Your task to perform on an android device: open chrome privacy settings Image 0: 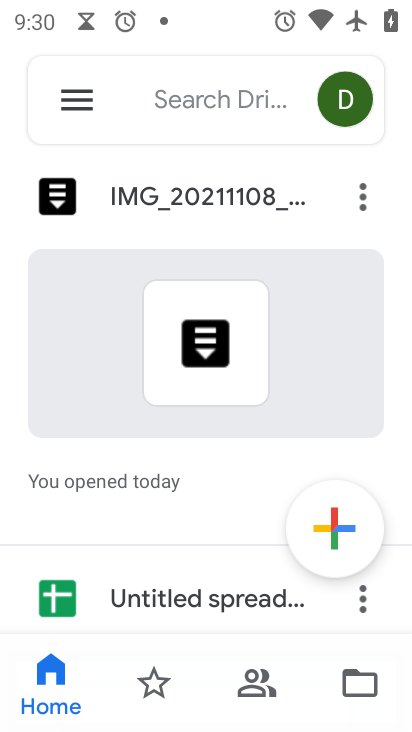
Step 0: press back button
Your task to perform on an android device: open chrome privacy settings Image 1: 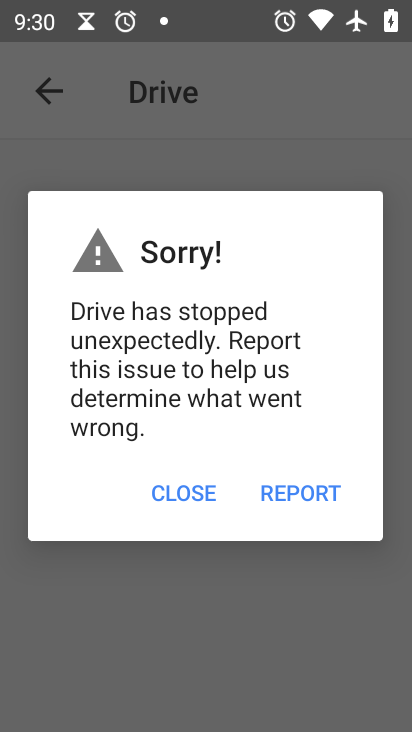
Step 1: press home button
Your task to perform on an android device: open chrome privacy settings Image 2: 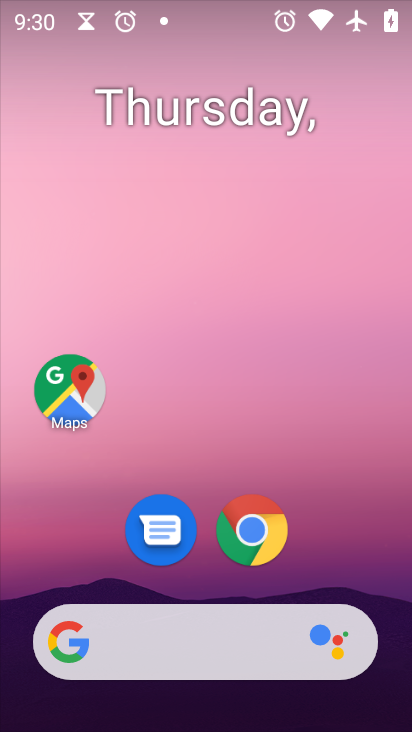
Step 2: drag from (342, 548) to (263, 0)
Your task to perform on an android device: open chrome privacy settings Image 3: 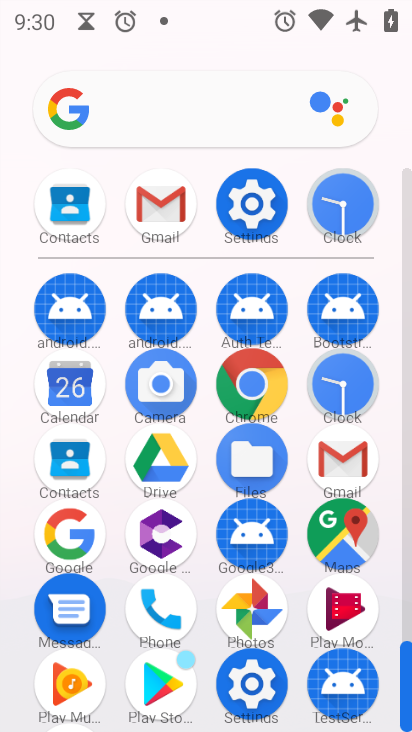
Step 3: drag from (9, 618) to (16, 286)
Your task to perform on an android device: open chrome privacy settings Image 4: 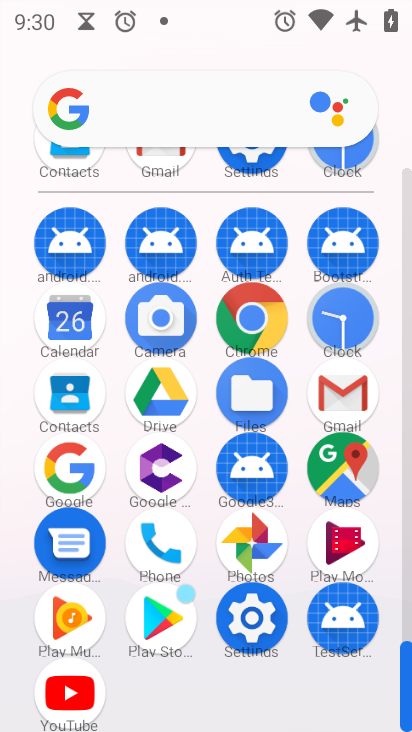
Step 4: click (250, 317)
Your task to perform on an android device: open chrome privacy settings Image 5: 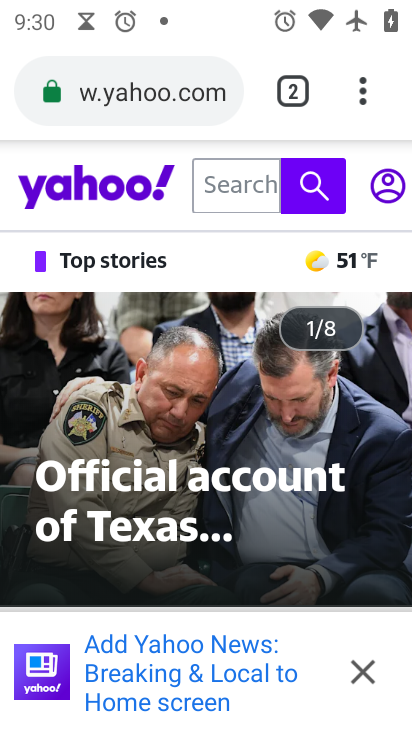
Step 5: drag from (359, 97) to (172, 545)
Your task to perform on an android device: open chrome privacy settings Image 6: 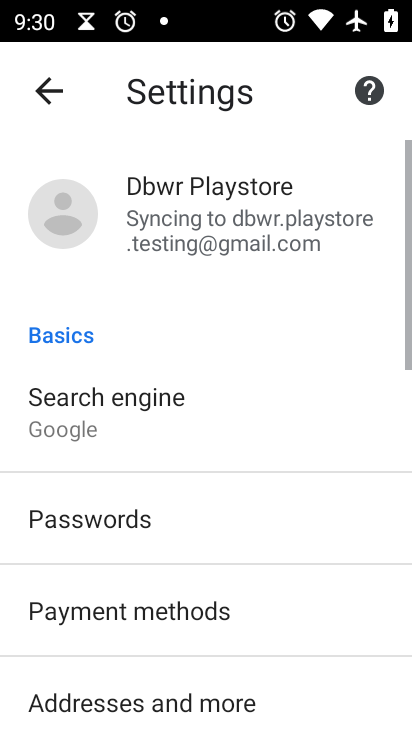
Step 6: drag from (182, 552) to (200, 143)
Your task to perform on an android device: open chrome privacy settings Image 7: 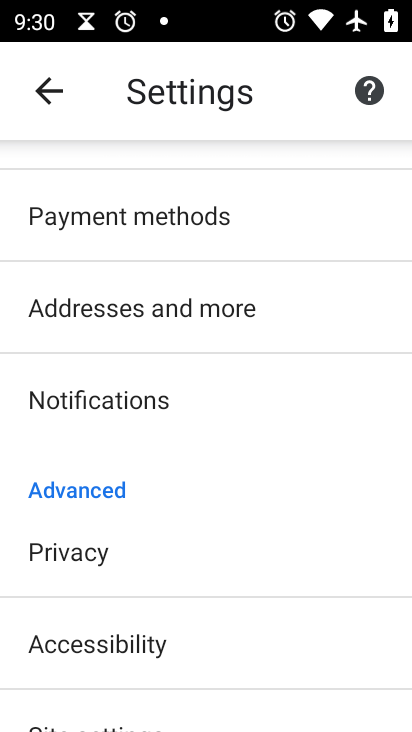
Step 7: click (115, 562)
Your task to perform on an android device: open chrome privacy settings Image 8: 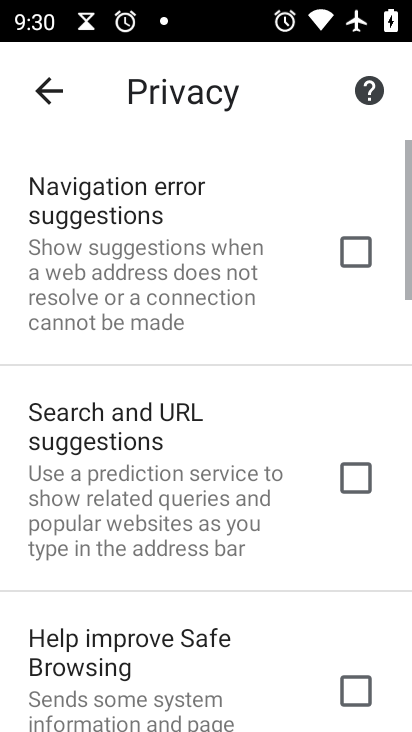
Step 8: task complete